Your task to perform on an android device: add a label to a message in the gmail app Image 0: 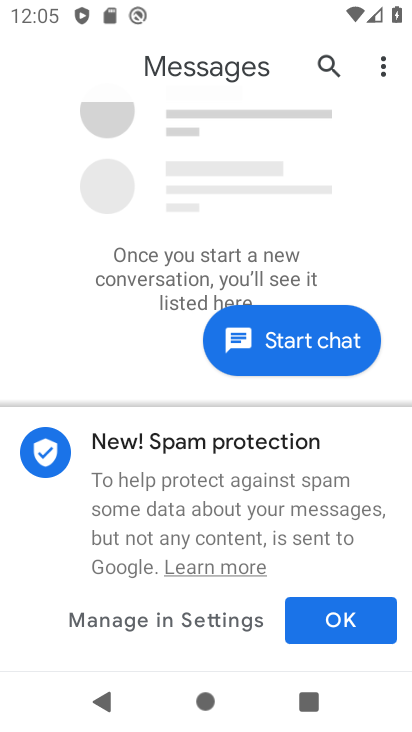
Step 0: press home button
Your task to perform on an android device: add a label to a message in the gmail app Image 1: 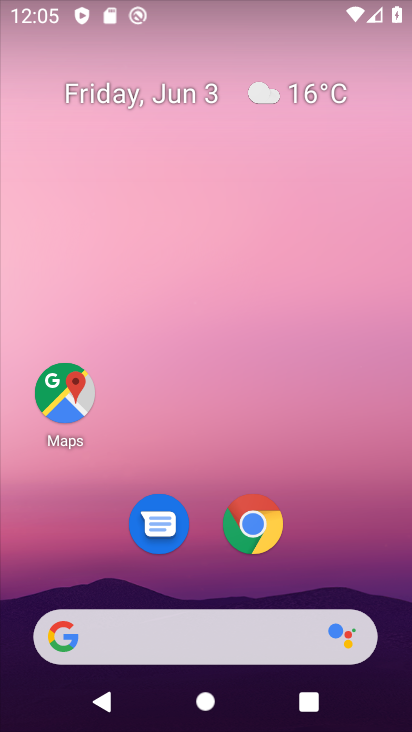
Step 1: drag from (211, 568) to (183, 49)
Your task to perform on an android device: add a label to a message in the gmail app Image 2: 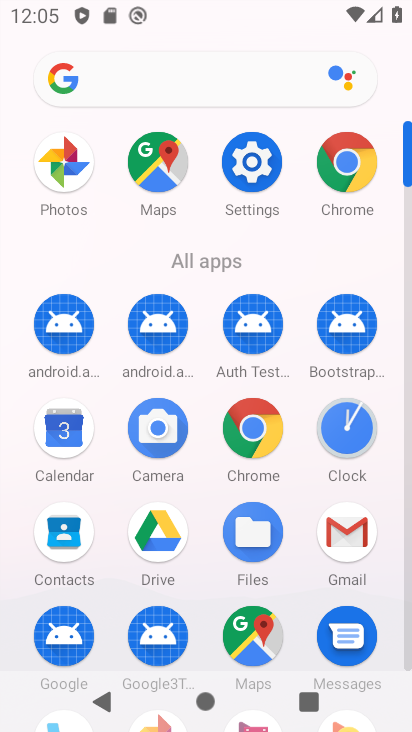
Step 2: click (342, 536)
Your task to perform on an android device: add a label to a message in the gmail app Image 3: 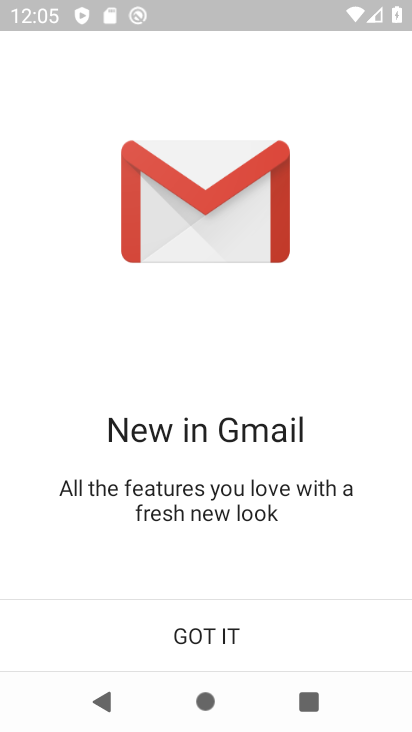
Step 3: click (301, 627)
Your task to perform on an android device: add a label to a message in the gmail app Image 4: 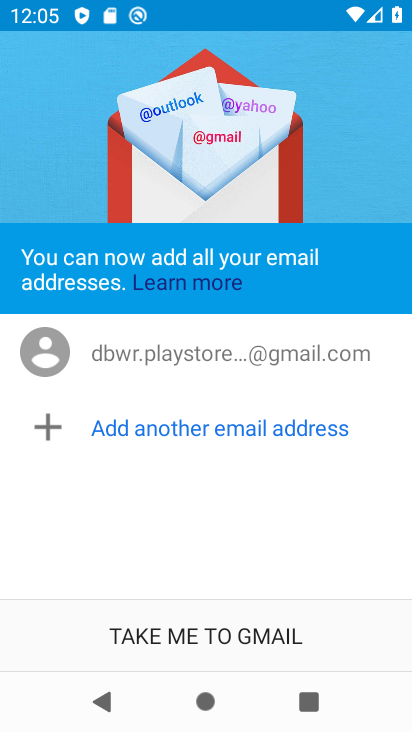
Step 4: click (301, 627)
Your task to perform on an android device: add a label to a message in the gmail app Image 5: 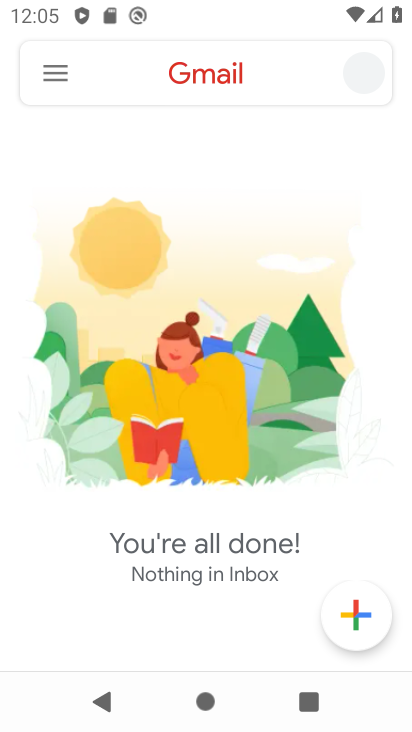
Step 5: click (48, 74)
Your task to perform on an android device: add a label to a message in the gmail app Image 6: 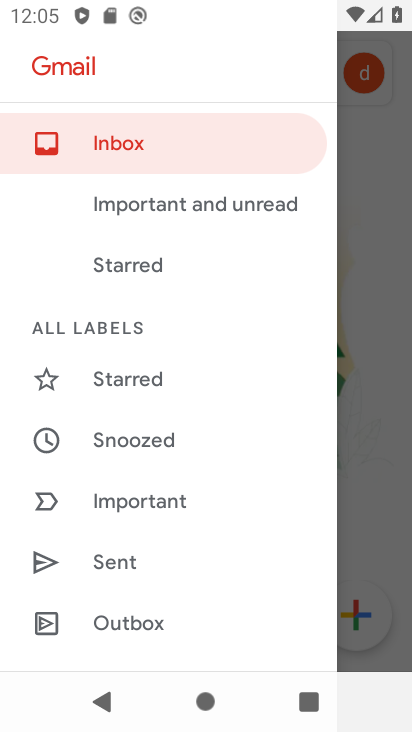
Step 6: drag from (169, 536) to (200, 92)
Your task to perform on an android device: add a label to a message in the gmail app Image 7: 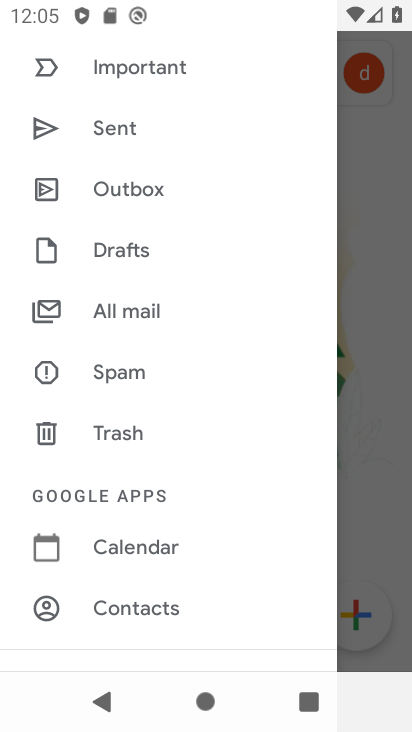
Step 7: click (202, 303)
Your task to perform on an android device: add a label to a message in the gmail app Image 8: 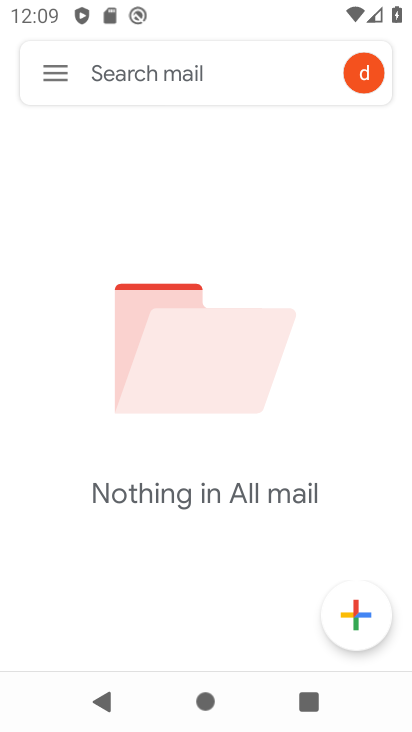
Step 8: task complete